Your task to perform on an android device: Go to Android settings Image 0: 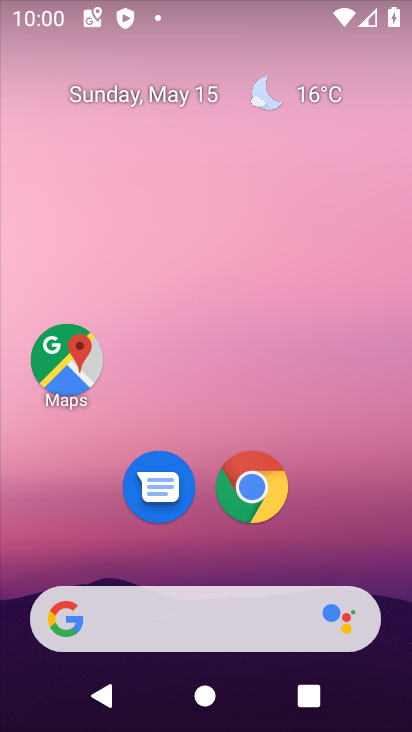
Step 0: drag from (402, 623) to (334, 102)
Your task to perform on an android device: Go to Android settings Image 1: 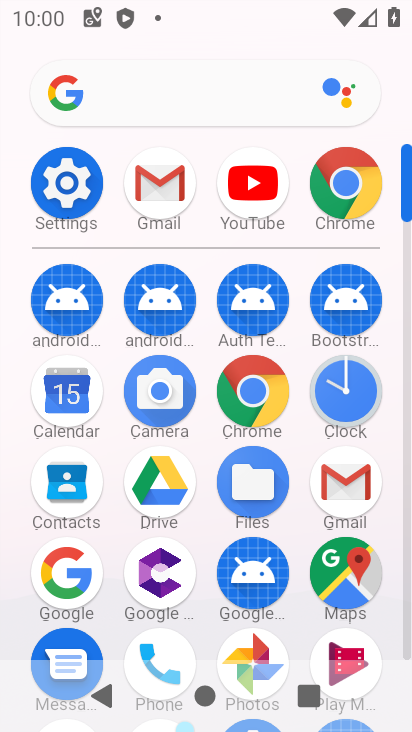
Step 1: click (408, 645)
Your task to perform on an android device: Go to Android settings Image 2: 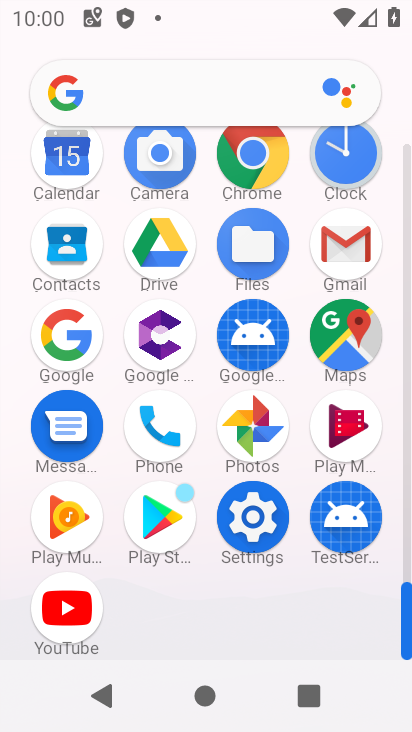
Step 2: click (253, 516)
Your task to perform on an android device: Go to Android settings Image 3: 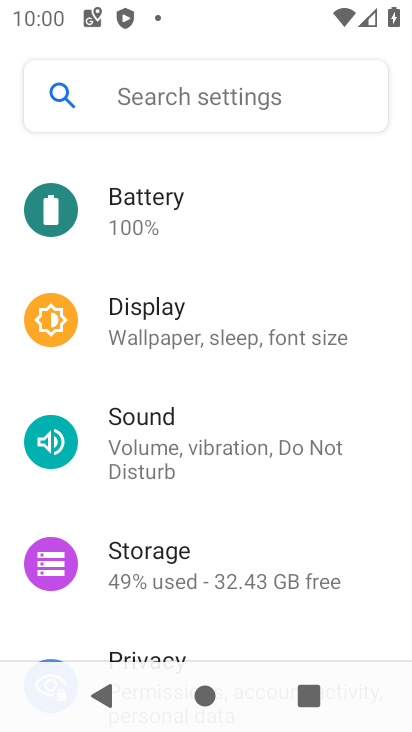
Step 3: drag from (368, 617) to (354, 111)
Your task to perform on an android device: Go to Android settings Image 4: 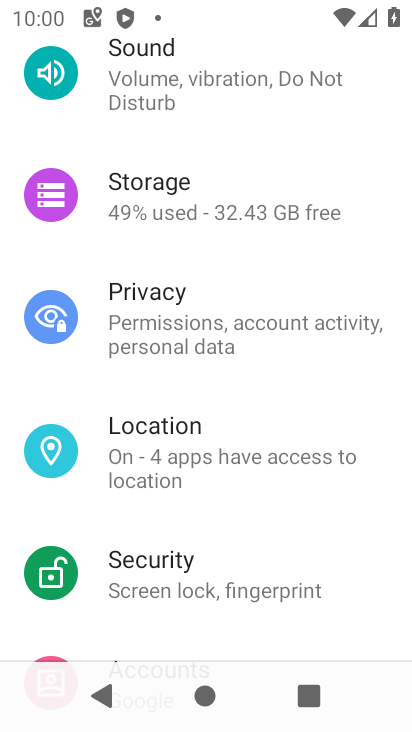
Step 4: drag from (346, 610) to (350, 208)
Your task to perform on an android device: Go to Android settings Image 5: 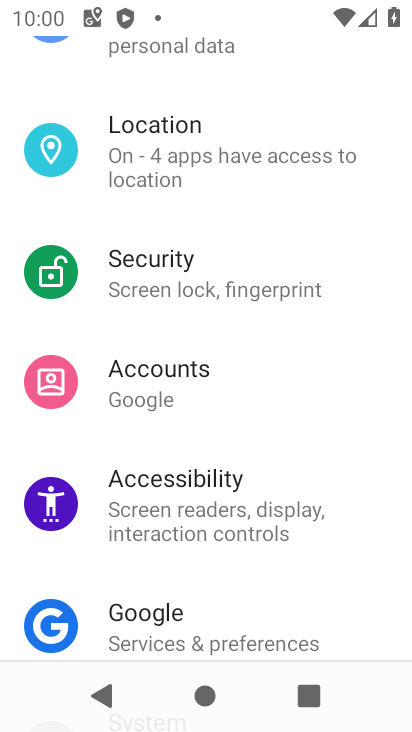
Step 5: drag from (334, 625) to (339, 192)
Your task to perform on an android device: Go to Android settings Image 6: 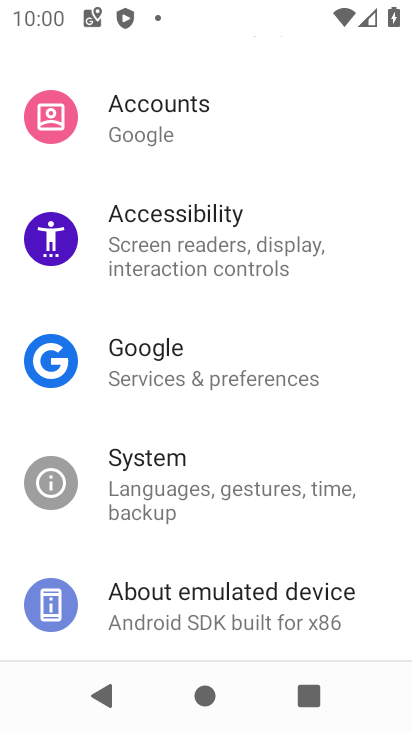
Step 6: click (182, 599)
Your task to perform on an android device: Go to Android settings Image 7: 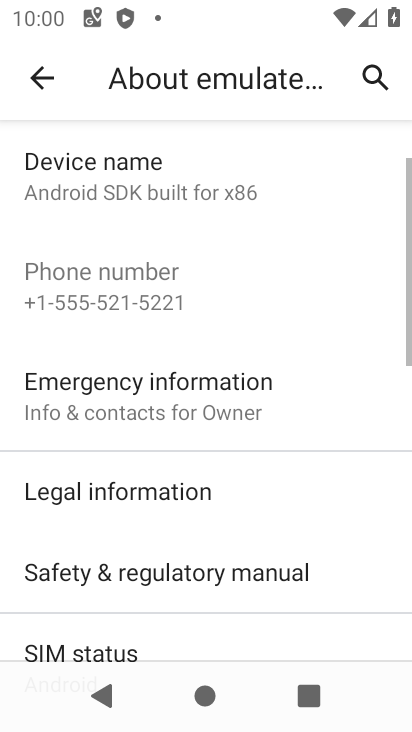
Step 7: task complete